Your task to perform on an android device: find snoozed emails in the gmail app Image 0: 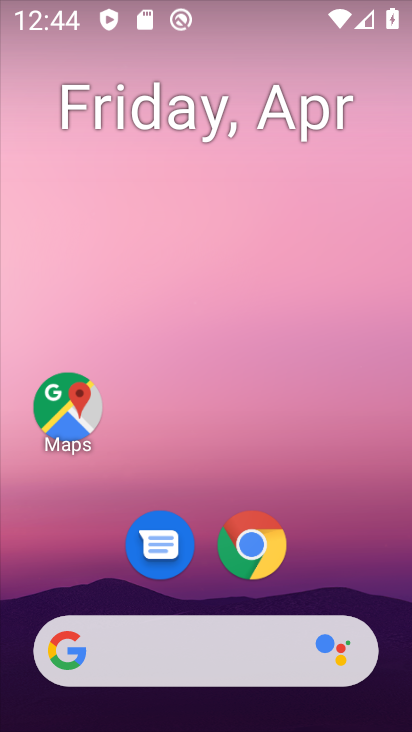
Step 0: drag from (324, 506) to (301, 28)
Your task to perform on an android device: find snoozed emails in the gmail app Image 1: 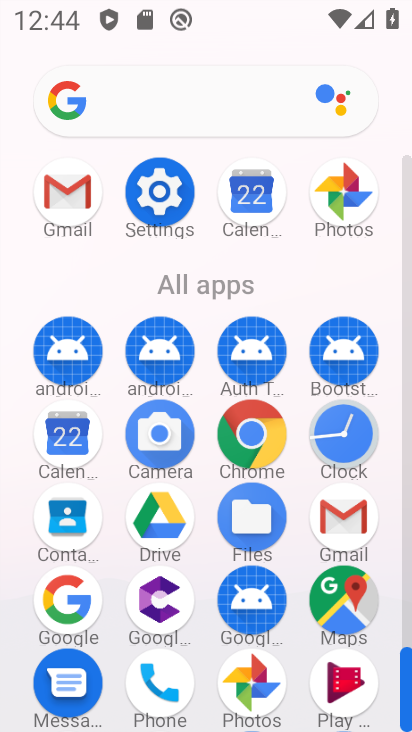
Step 1: click (75, 192)
Your task to perform on an android device: find snoozed emails in the gmail app Image 2: 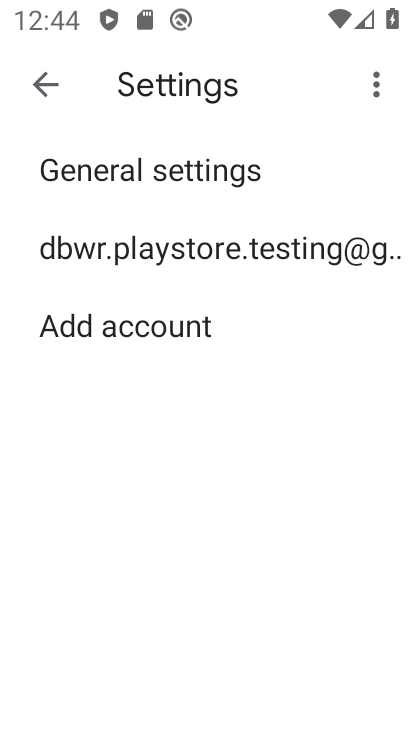
Step 2: click (51, 92)
Your task to perform on an android device: find snoozed emails in the gmail app Image 3: 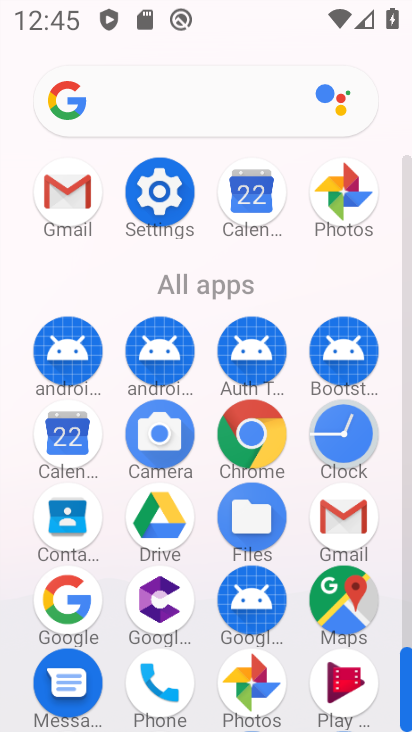
Step 3: click (74, 193)
Your task to perform on an android device: find snoozed emails in the gmail app Image 4: 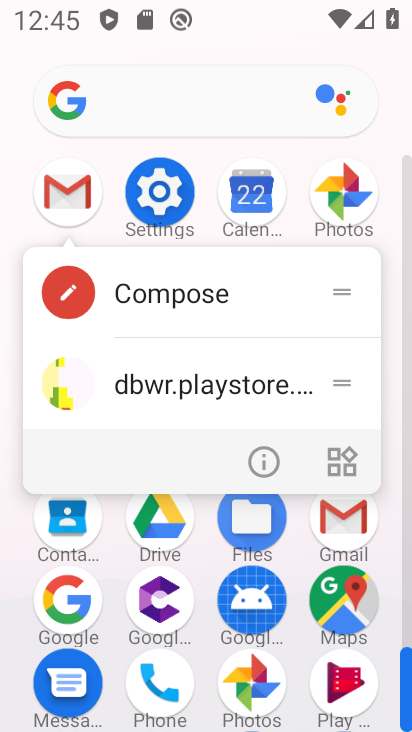
Step 4: click (76, 192)
Your task to perform on an android device: find snoozed emails in the gmail app Image 5: 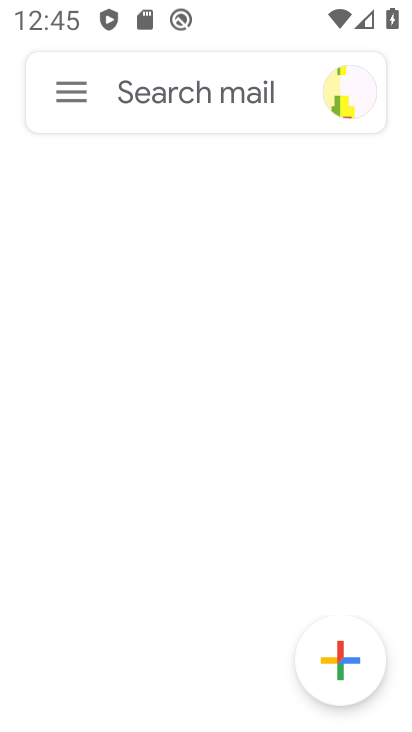
Step 5: click (78, 86)
Your task to perform on an android device: find snoozed emails in the gmail app Image 6: 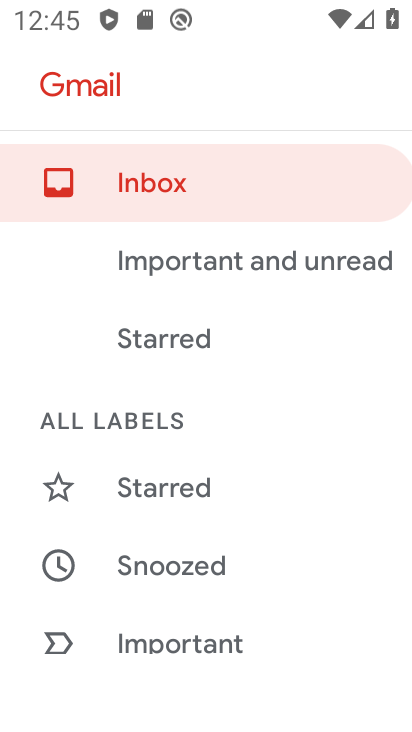
Step 6: click (169, 570)
Your task to perform on an android device: find snoozed emails in the gmail app Image 7: 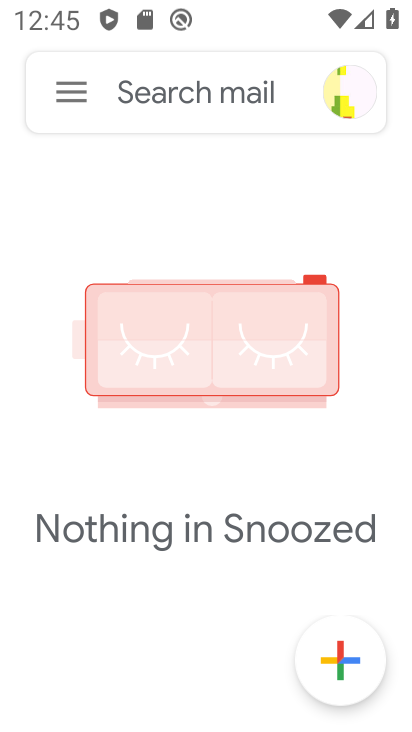
Step 7: task complete